Your task to perform on an android device: toggle notification dots Image 0: 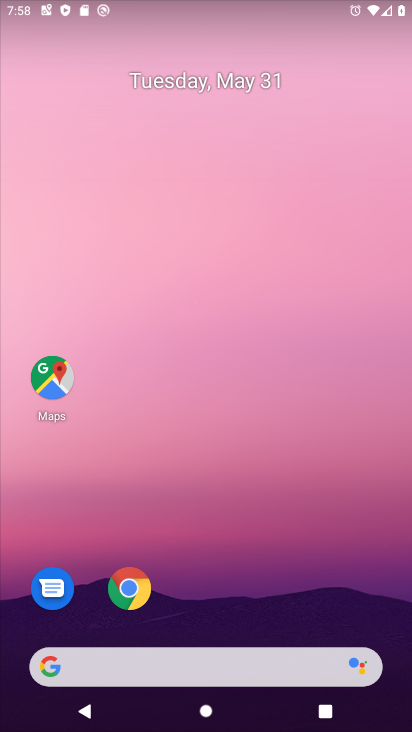
Step 0: drag from (213, 643) to (306, 42)
Your task to perform on an android device: toggle notification dots Image 1: 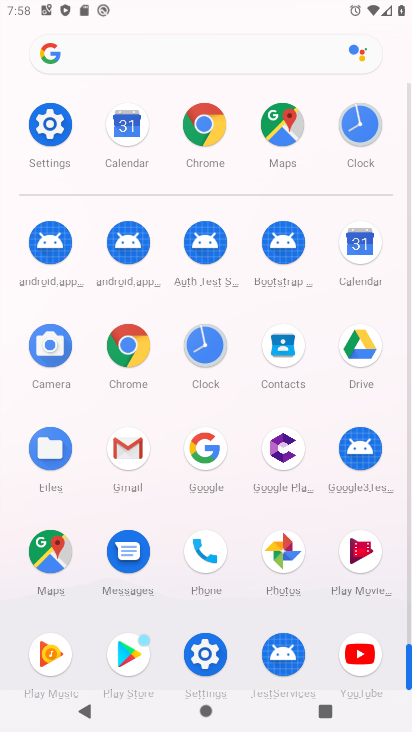
Step 1: click (52, 126)
Your task to perform on an android device: toggle notification dots Image 2: 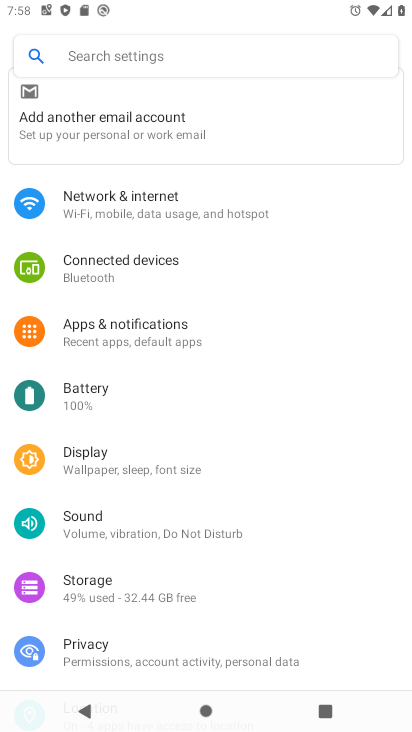
Step 2: click (172, 325)
Your task to perform on an android device: toggle notification dots Image 3: 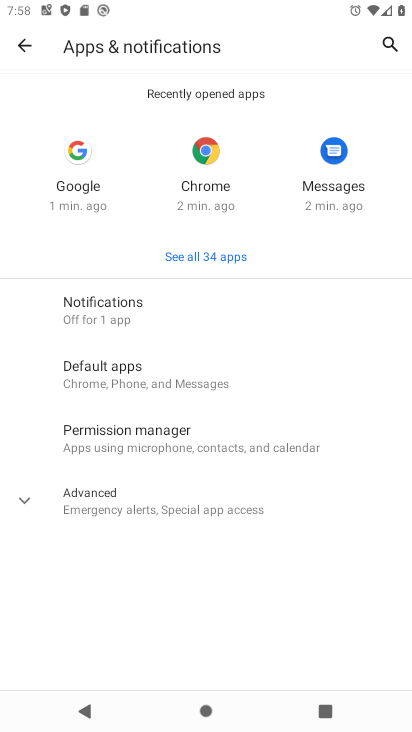
Step 3: click (145, 311)
Your task to perform on an android device: toggle notification dots Image 4: 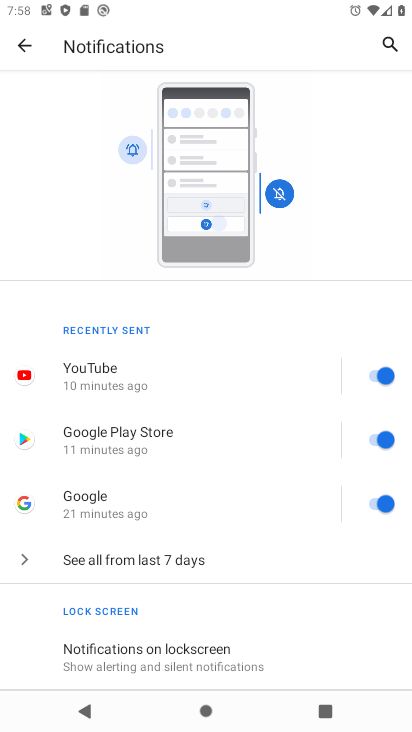
Step 4: drag from (173, 634) to (248, 321)
Your task to perform on an android device: toggle notification dots Image 5: 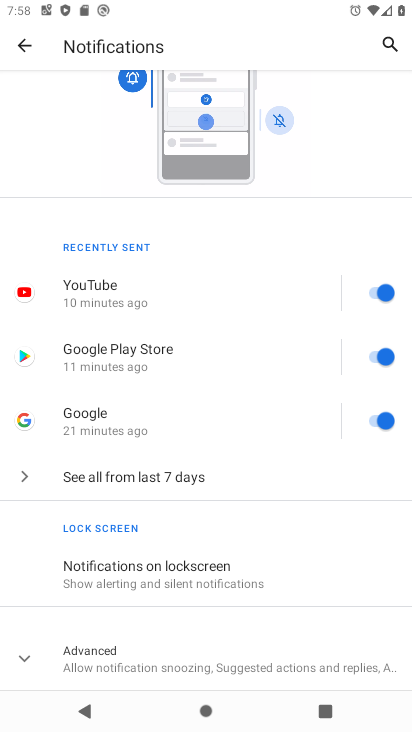
Step 5: click (159, 654)
Your task to perform on an android device: toggle notification dots Image 6: 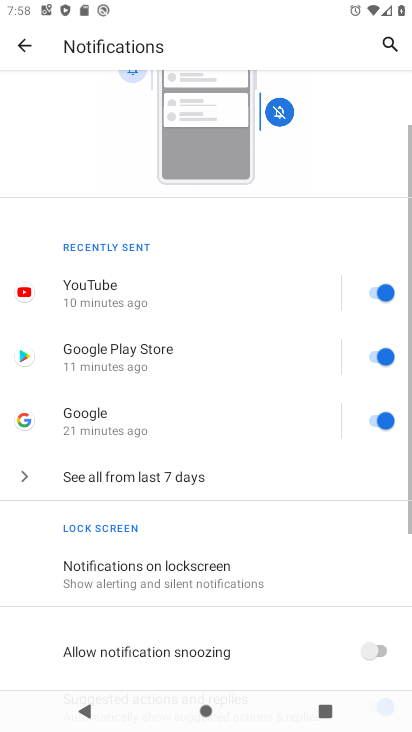
Step 6: drag from (160, 681) to (226, 355)
Your task to perform on an android device: toggle notification dots Image 7: 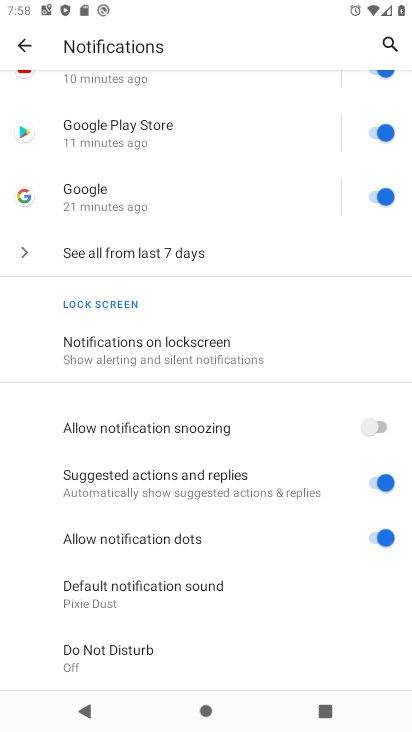
Step 7: click (359, 530)
Your task to perform on an android device: toggle notification dots Image 8: 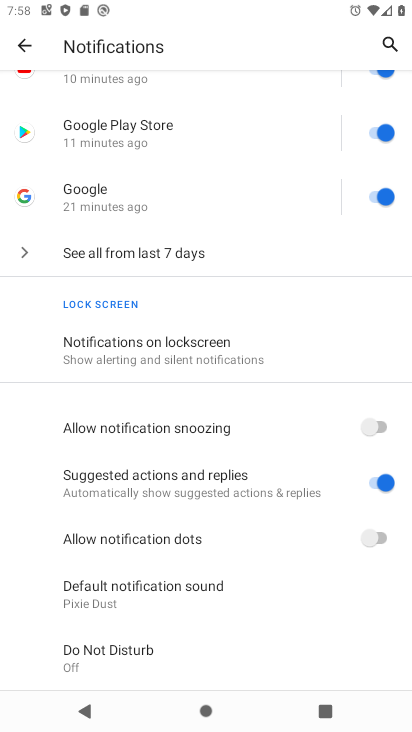
Step 8: task complete